Your task to perform on an android device: Open the Play Movies app and select the watchlist tab. Image 0: 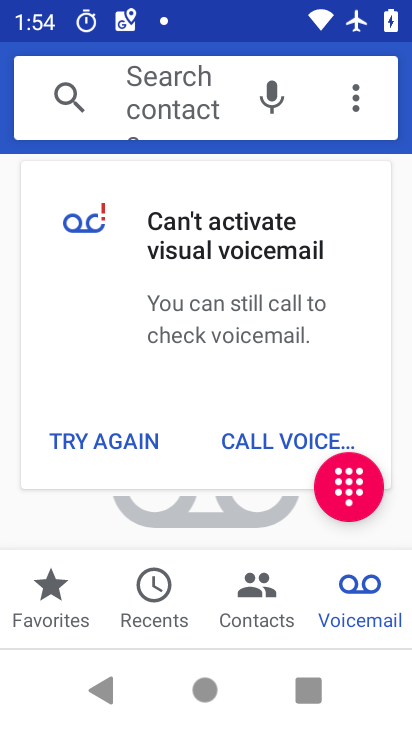
Step 0: press home button
Your task to perform on an android device: Open the Play Movies app and select the watchlist tab. Image 1: 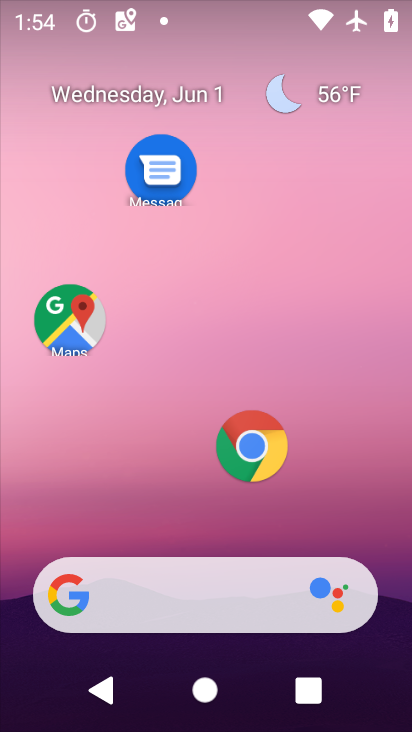
Step 1: drag from (17, 590) to (206, 249)
Your task to perform on an android device: Open the Play Movies app and select the watchlist tab. Image 2: 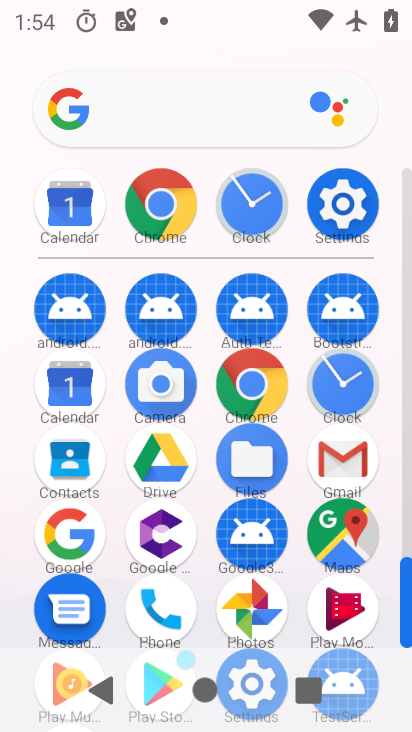
Step 2: click (336, 605)
Your task to perform on an android device: Open the Play Movies app and select the watchlist tab. Image 3: 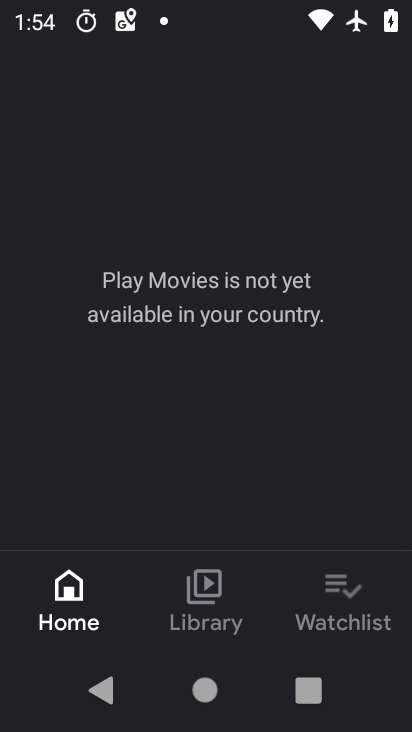
Step 3: click (319, 603)
Your task to perform on an android device: Open the Play Movies app and select the watchlist tab. Image 4: 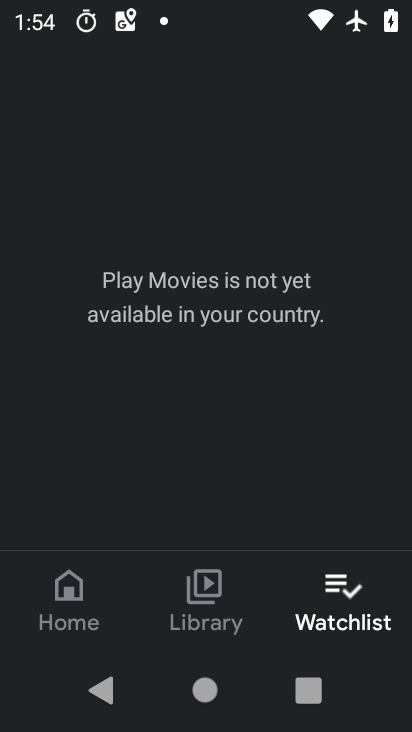
Step 4: task complete